Your task to perform on an android device: move an email to a new category in the gmail app Image 0: 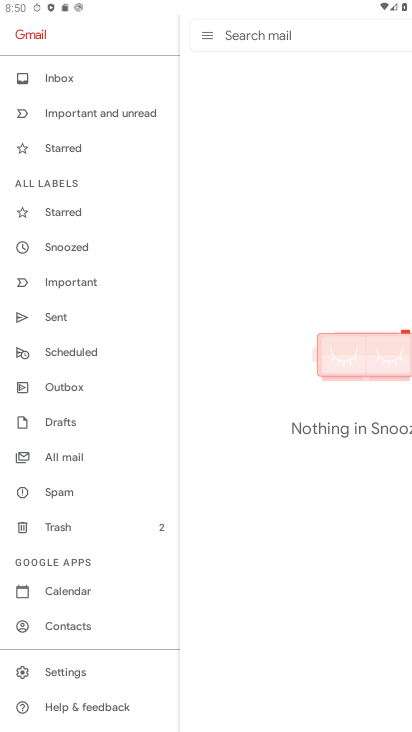
Step 0: press home button
Your task to perform on an android device: move an email to a new category in the gmail app Image 1: 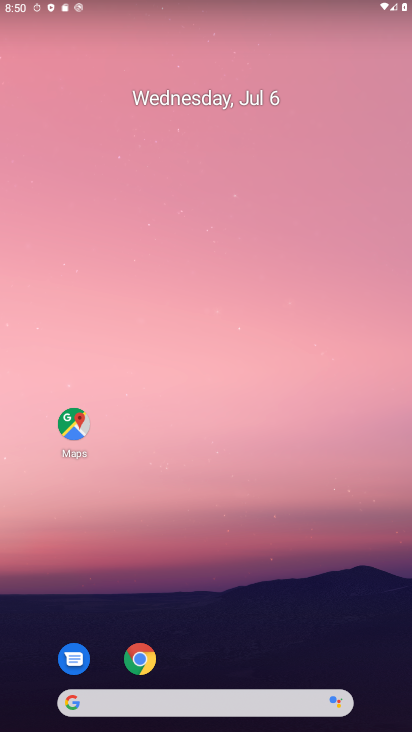
Step 1: drag from (336, 653) to (349, 137)
Your task to perform on an android device: move an email to a new category in the gmail app Image 2: 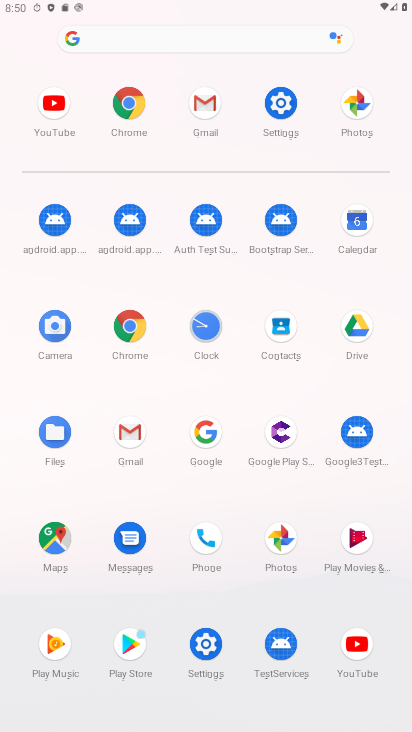
Step 2: click (128, 435)
Your task to perform on an android device: move an email to a new category in the gmail app Image 3: 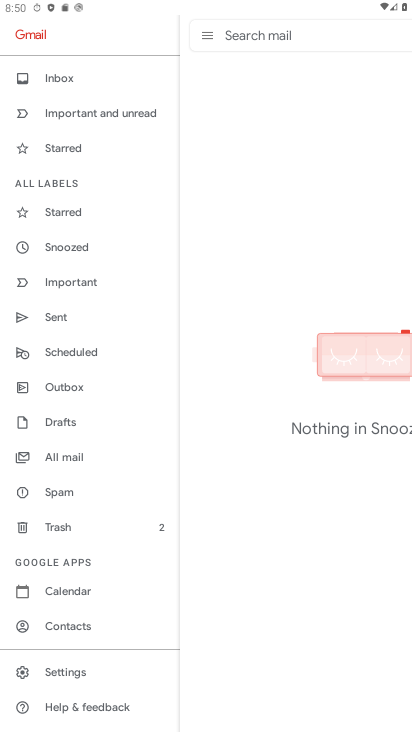
Step 3: drag from (129, 177) to (137, 378)
Your task to perform on an android device: move an email to a new category in the gmail app Image 4: 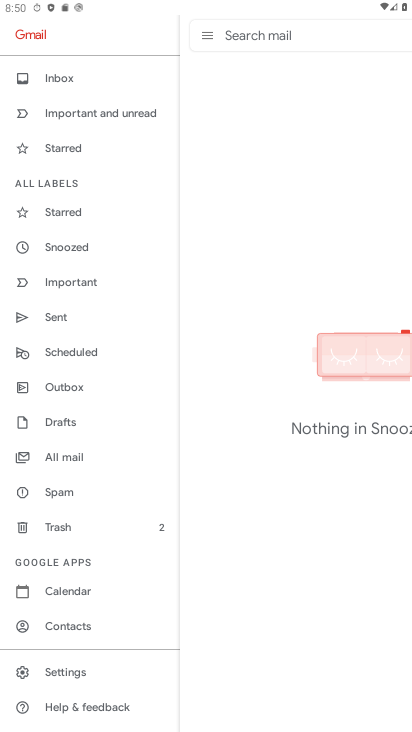
Step 4: click (86, 73)
Your task to perform on an android device: move an email to a new category in the gmail app Image 5: 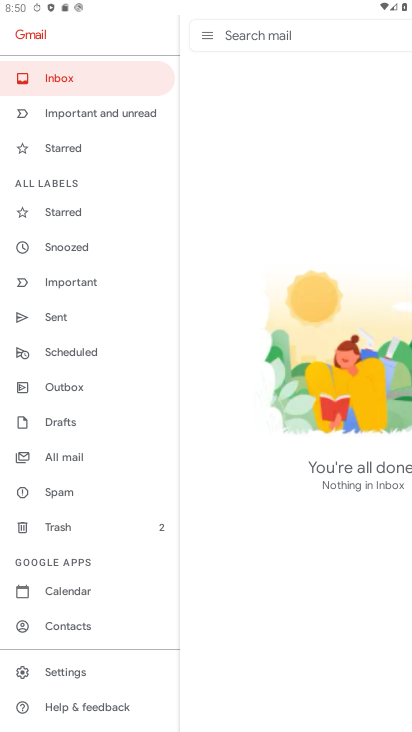
Step 5: task complete